Your task to perform on an android device: turn off location Image 0: 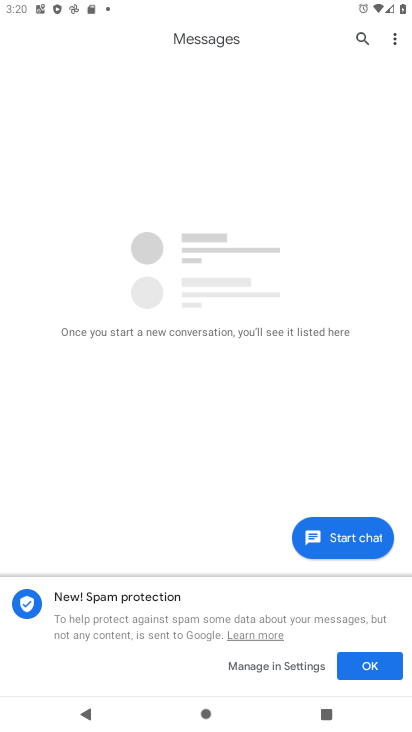
Step 0: press home button
Your task to perform on an android device: turn off location Image 1: 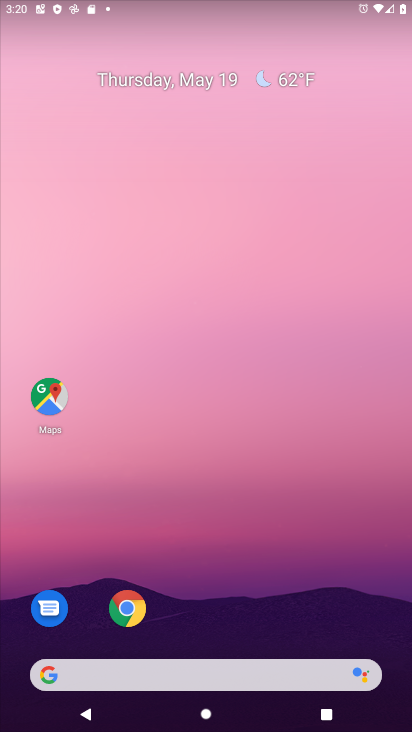
Step 1: drag from (187, 626) to (126, 158)
Your task to perform on an android device: turn off location Image 2: 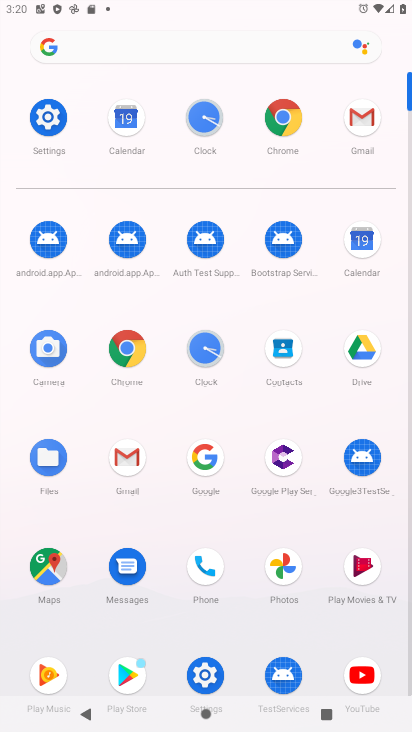
Step 2: click (39, 145)
Your task to perform on an android device: turn off location Image 3: 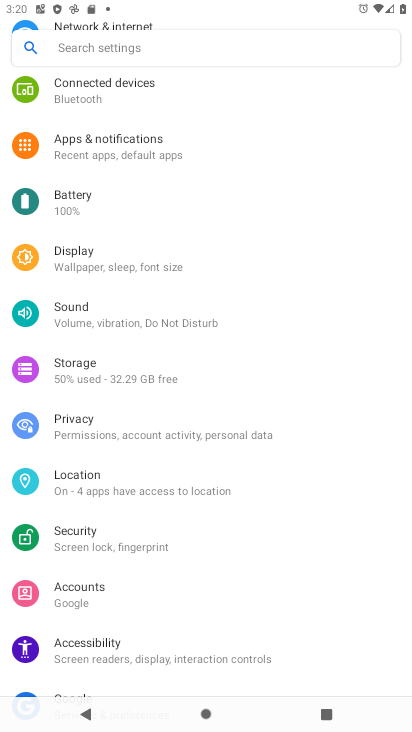
Step 3: drag from (149, 161) to (172, 444)
Your task to perform on an android device: turn off location Image 4: 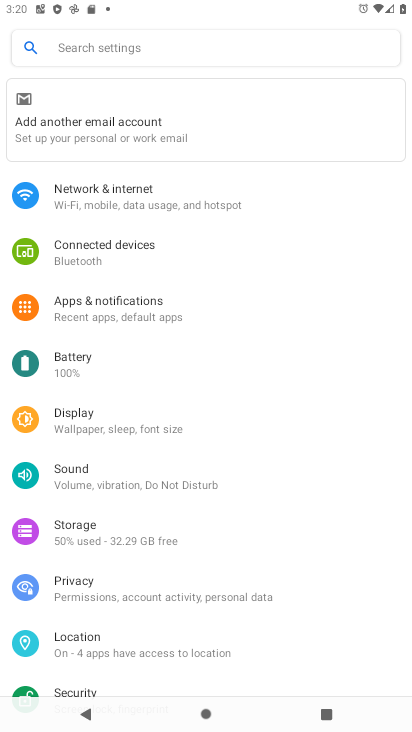
Step 4: click (116, 641)
Your task to perform on an android device: turn off location Image 5: 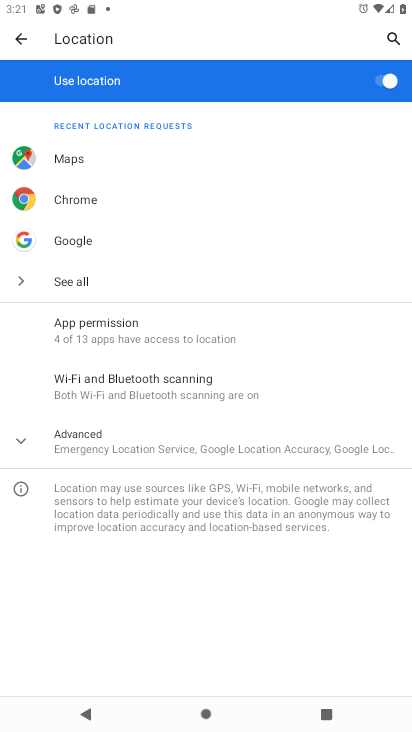
Step 5: click (164, 442)
Your task to perform on an android device: turn off location Image 6: 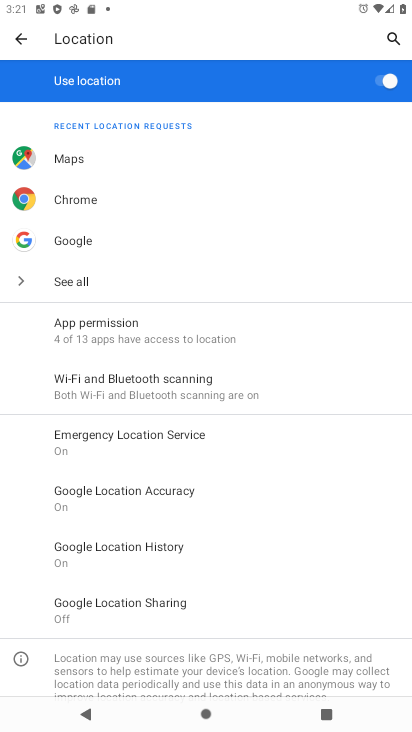
Step 6: task complete